Your task to perform on an android device: Go to eBay Image 0: 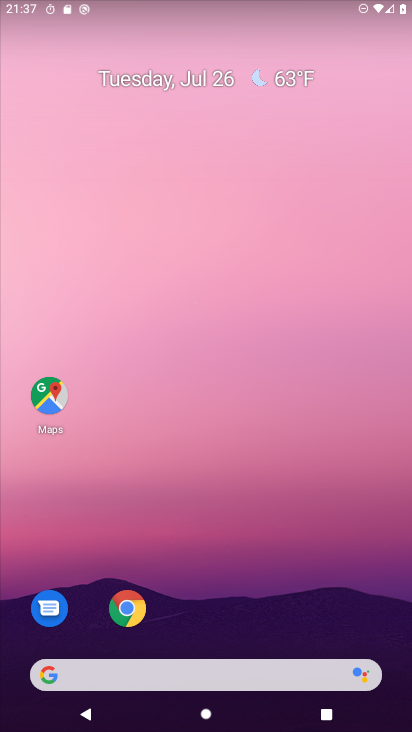
Step 0: click (81, 670)
Your task to perform on an android device: Go to eBay Image 1: 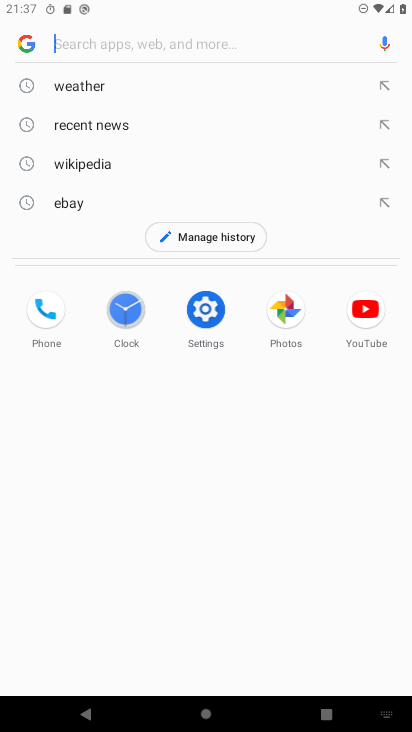
Step 1: click (57, 204)
Your task to perform on an android device: Go to eBay Image 2: 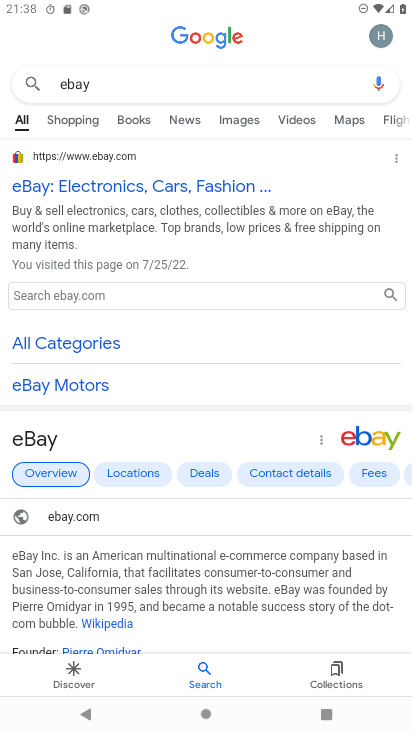
Step 2: task complete